Your task to perform on an android device: Go to privacy settings Image 0: 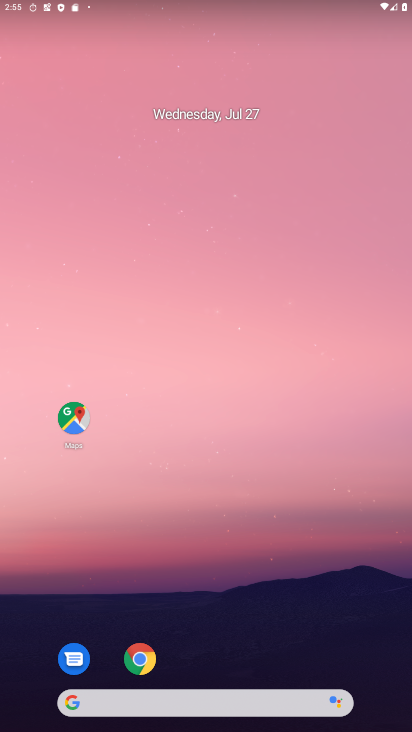
Step 0: drag from (202, 728) to (234, 59)
Your task to perform on an android device: Go to privacy settings Image 1: 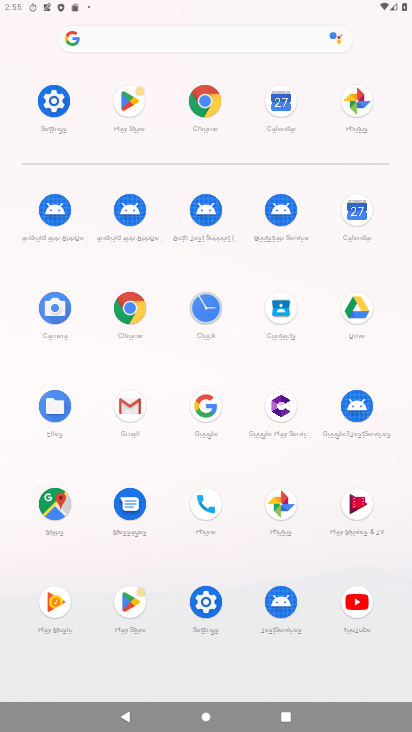
Step 1: click (54, 103)
Your task to perform on an android device: Go to privacy settings Image 2: 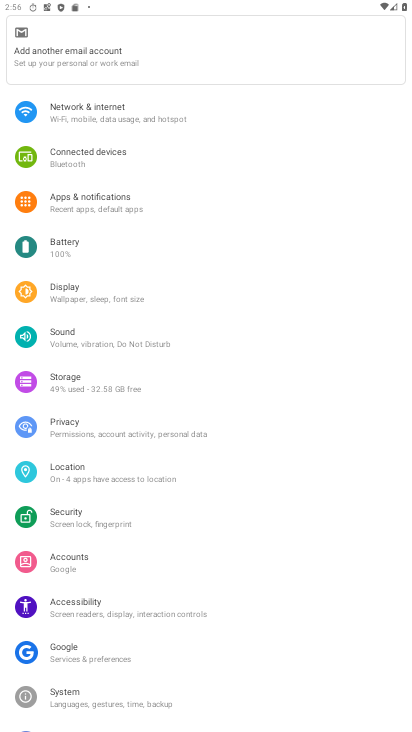
Step 2: click (74, 424)
Your task to perform on an android device: Go to privacy settings Image 3: 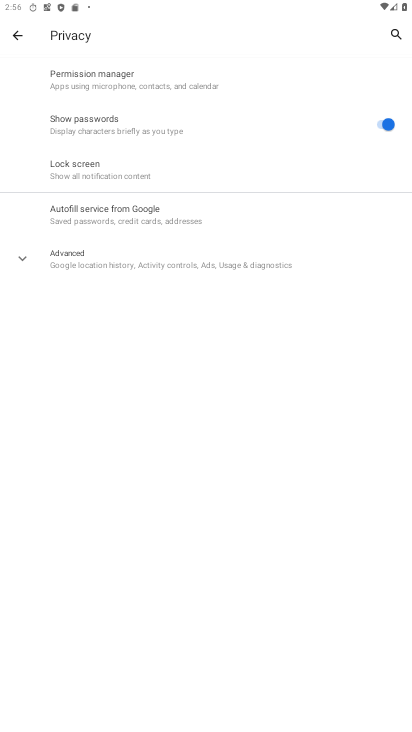
Step 3: task complete